Your task to perform on an android device: View the shopping cart on newegg.com. Search for "corsair k70" on newegg.com, select the first entry, and add it to the cart. Image 0: 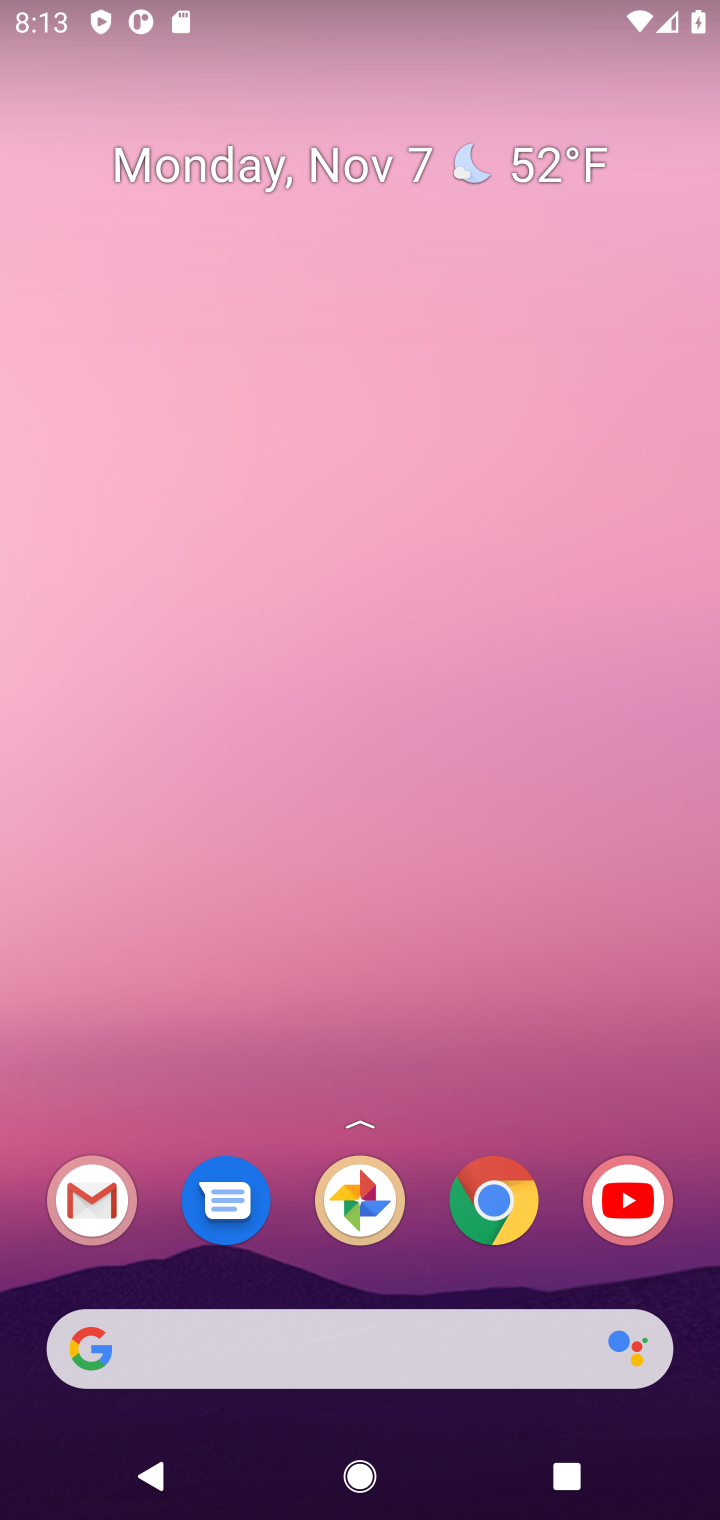
Step 0: click (484, 1185)
Your task to perform on an android device: View the shopping cart on newegg.com. Search for "corsair k70" on newegg.com, select the first entry, and add it to the cart. Image 1: 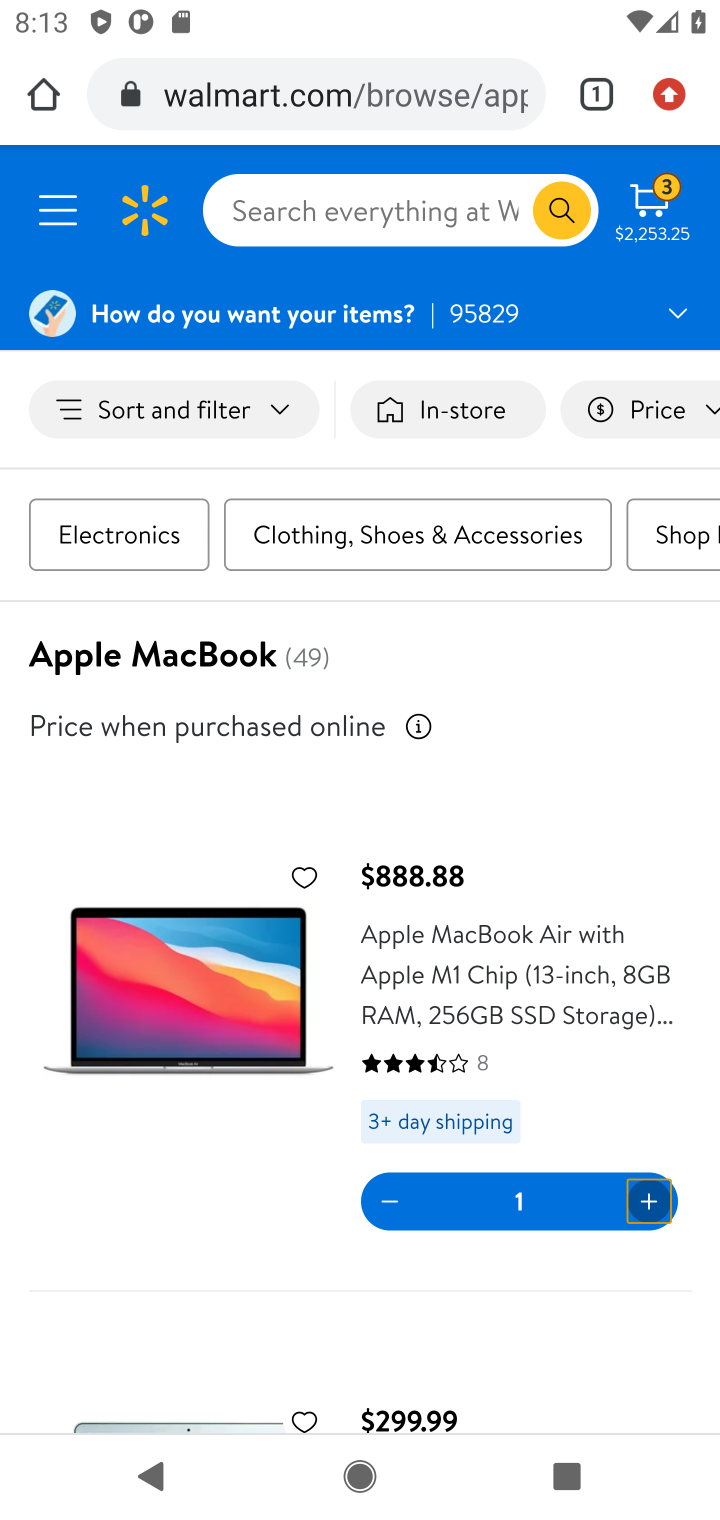
Step 1: click (269, 97)
Your task to perform on an android device: View the shopping cart on newegg.com. Search for "corsair k70" on newegg.com, select the first entry, and add it to the cart. Image 2: 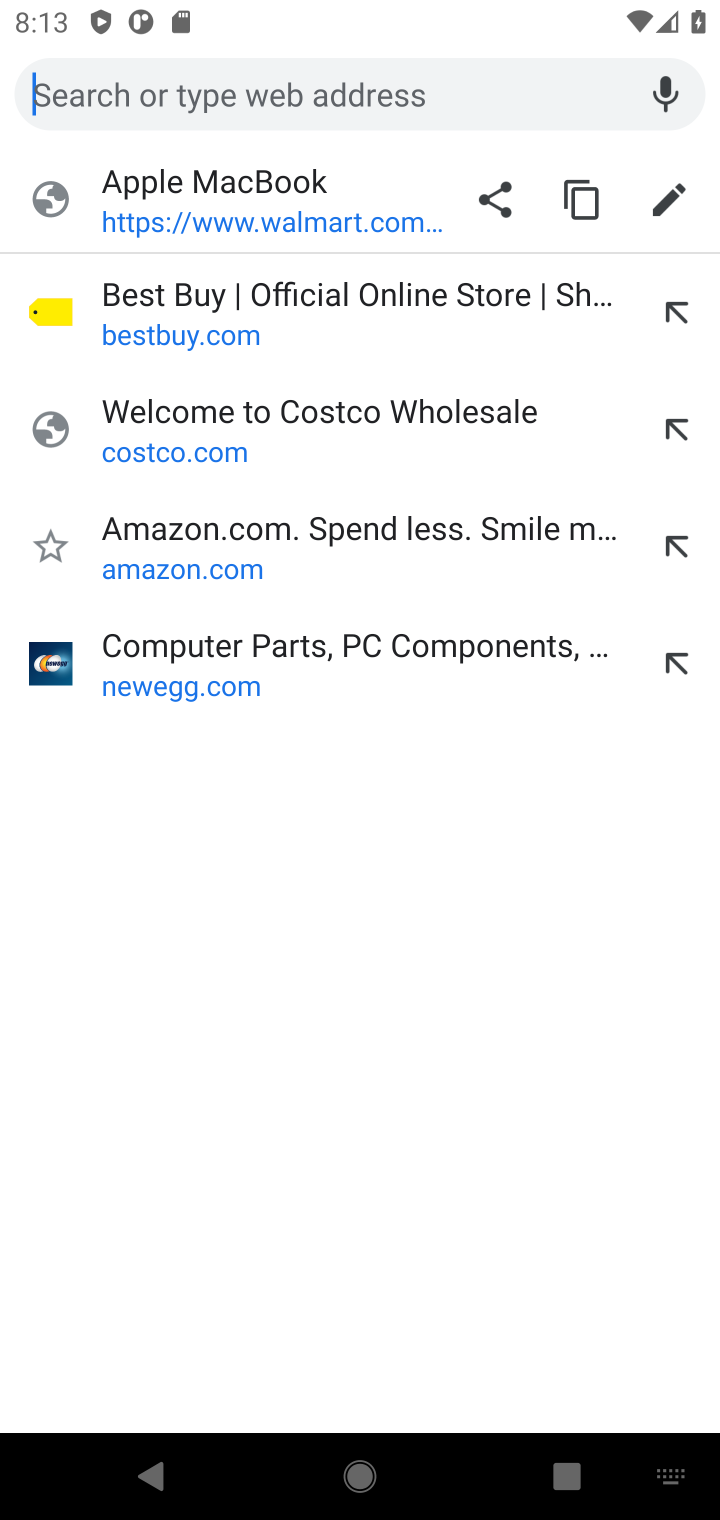
Step 2: click (209, 665)
Your task to perform on an android device: View the shopping cart on newegg.com. Search for "corsair k70" on newegg.com, select the first entry, and add it to the cart. Image 3: 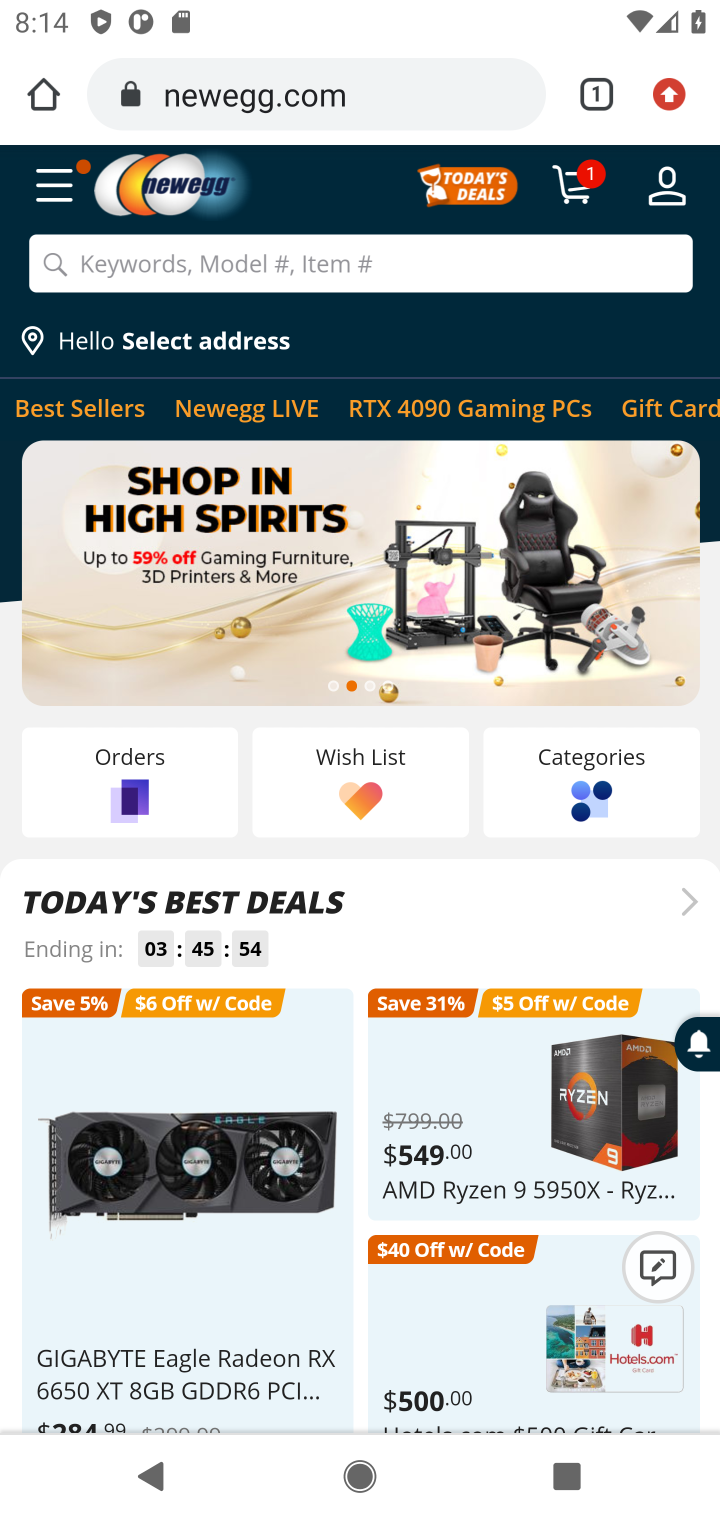
Step 3: click (579, 192)
Your task to perform on an android device: View the shopping cart on newegg.com. Search for "corsair k70" on newegg.com, select the first entry, and add it to the cart. Image 4: 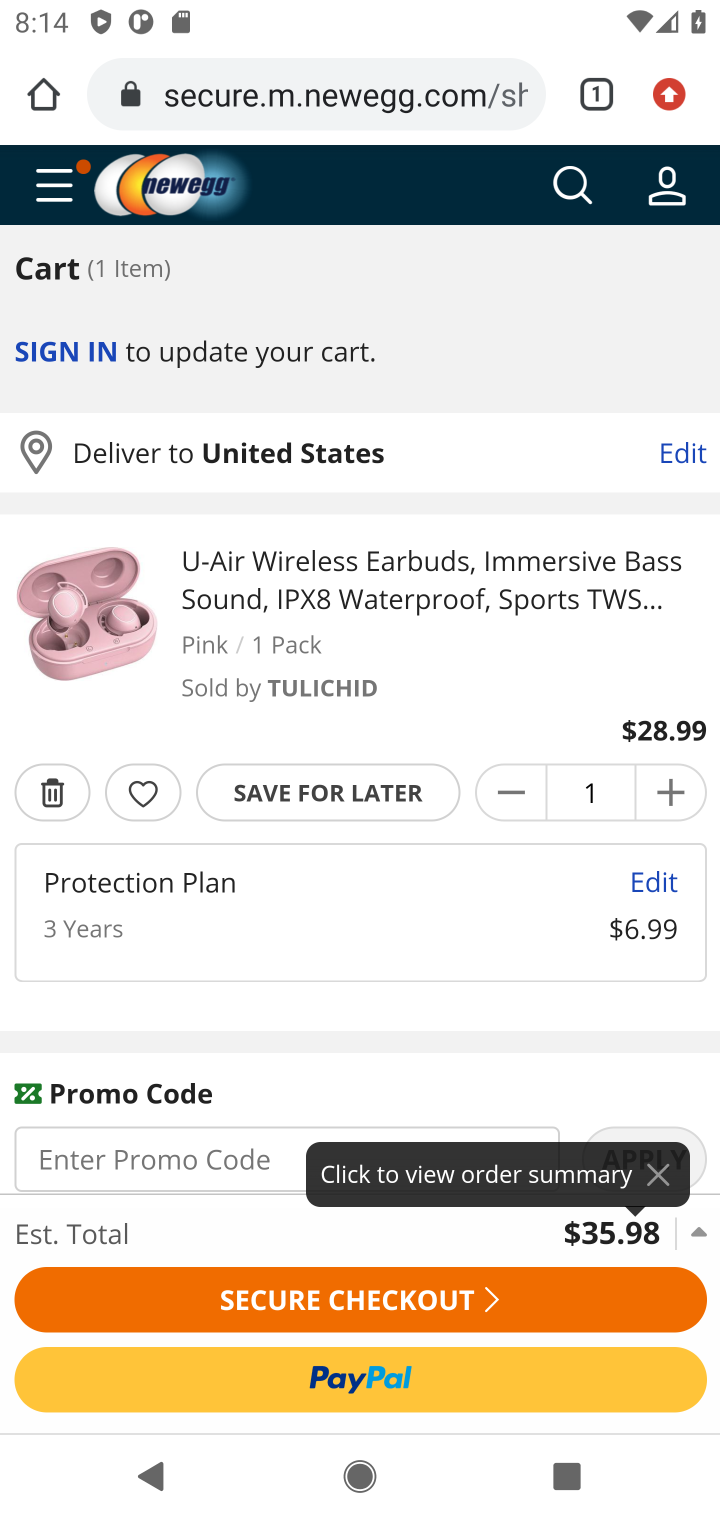
Step 4: click (556, 201)
Your task to perform on an android device: View the shopping cart on newegg.com. Search for "corsair k70" on newegg.com, select the first entry, and add it to the cart. Image 5: 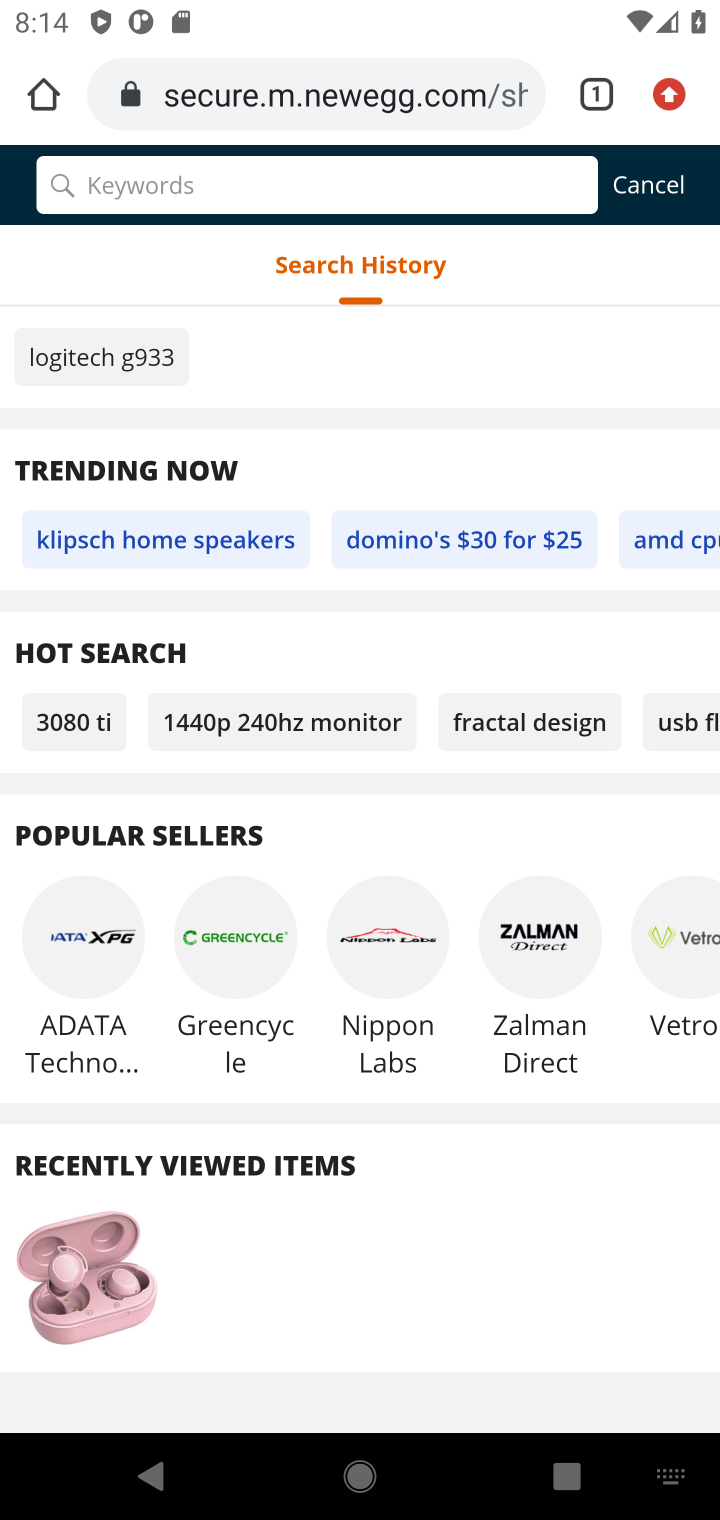
Step 5: type "corsair k70"
Your task to perform on an android device: View the shopping cart on newegg.com. Search for "corsair k70" on newegg.com, select the first entry, and add it to the cart. Image 6: 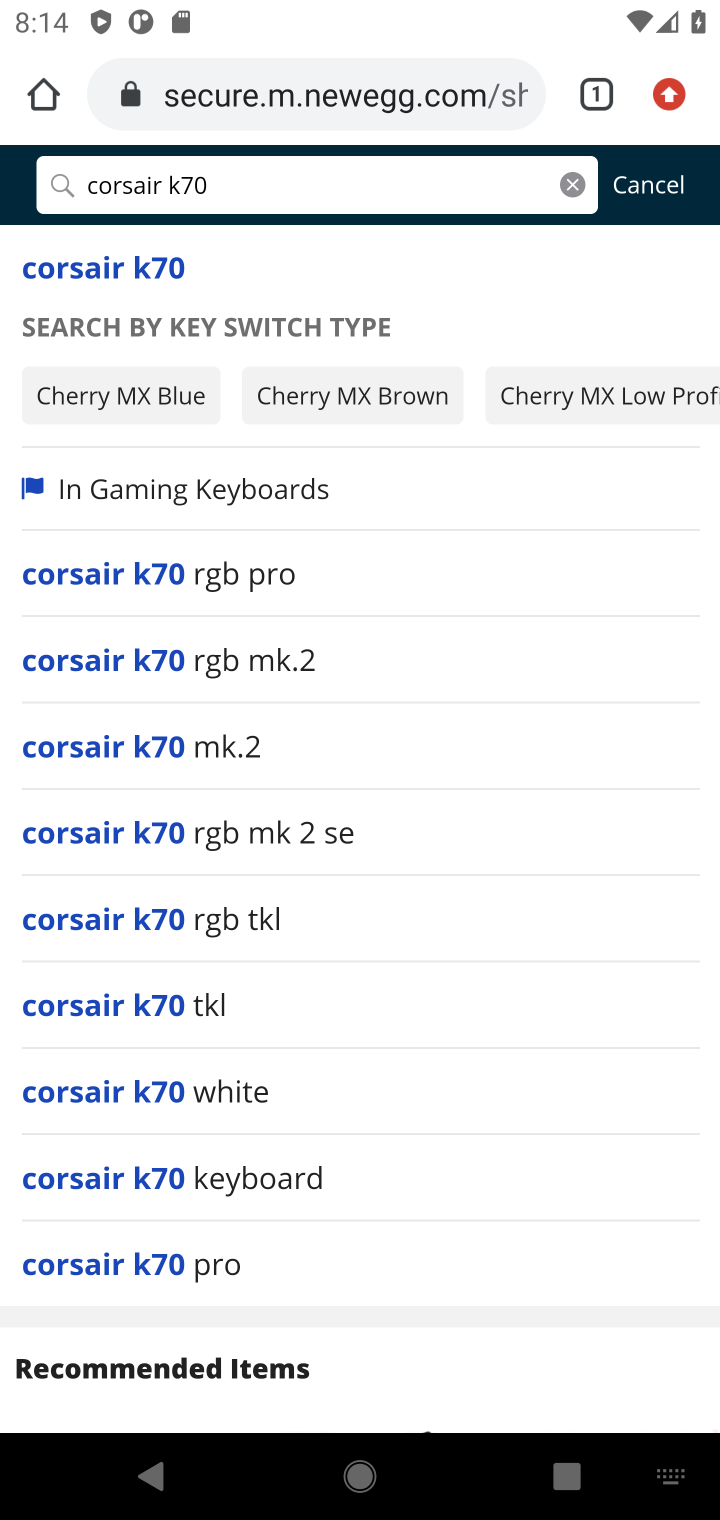
Step 6: press enter
Your task to perform on an android device: View the shopping cart on newegg.com. Search for "corsair k70" on newegg.com, select the first entry, and add it to the cart. Image 7: 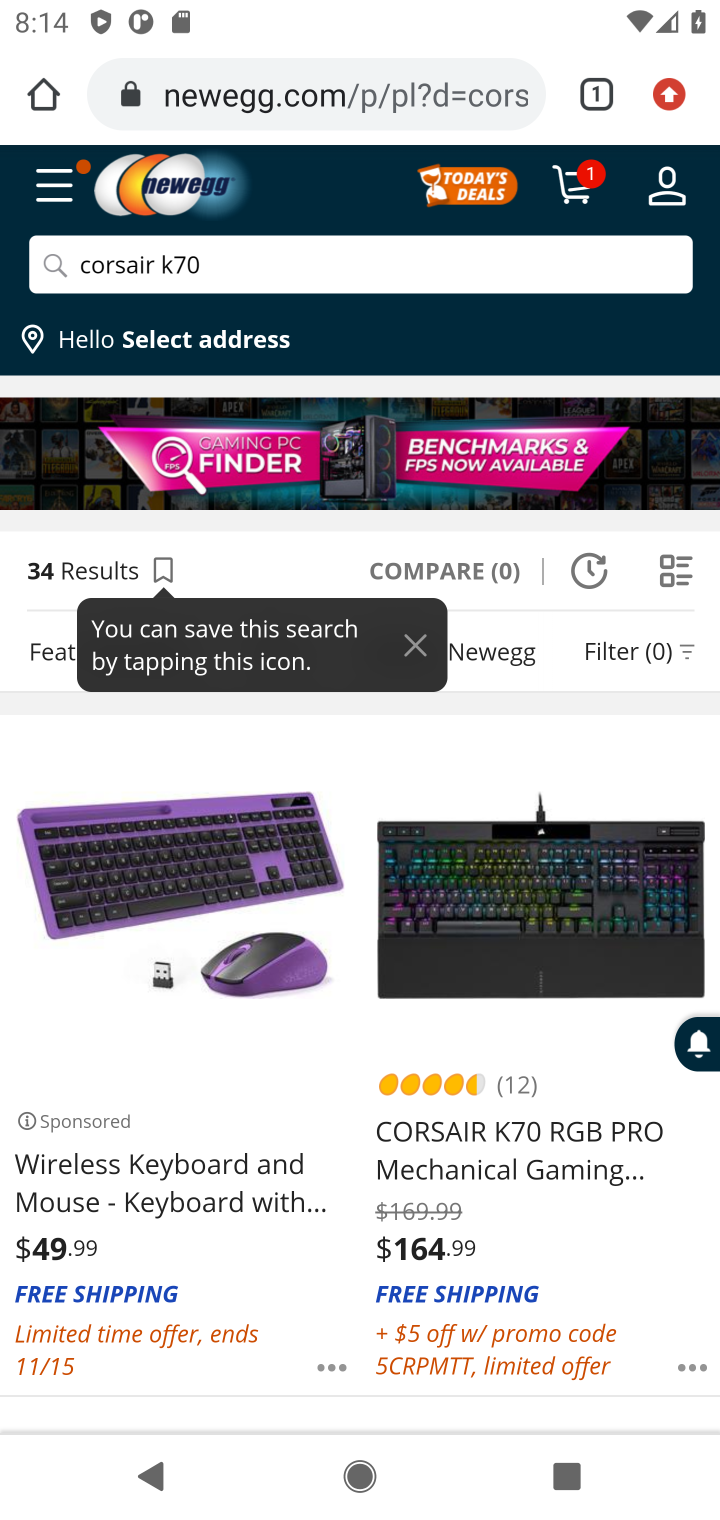
Step 7: click (261, 1021)
Your task to perform on an android device: View the shopping cart on newegg.com. Search for "corsair k70" on newegg.com, select the first entry, and add it to the cart. Image 8: 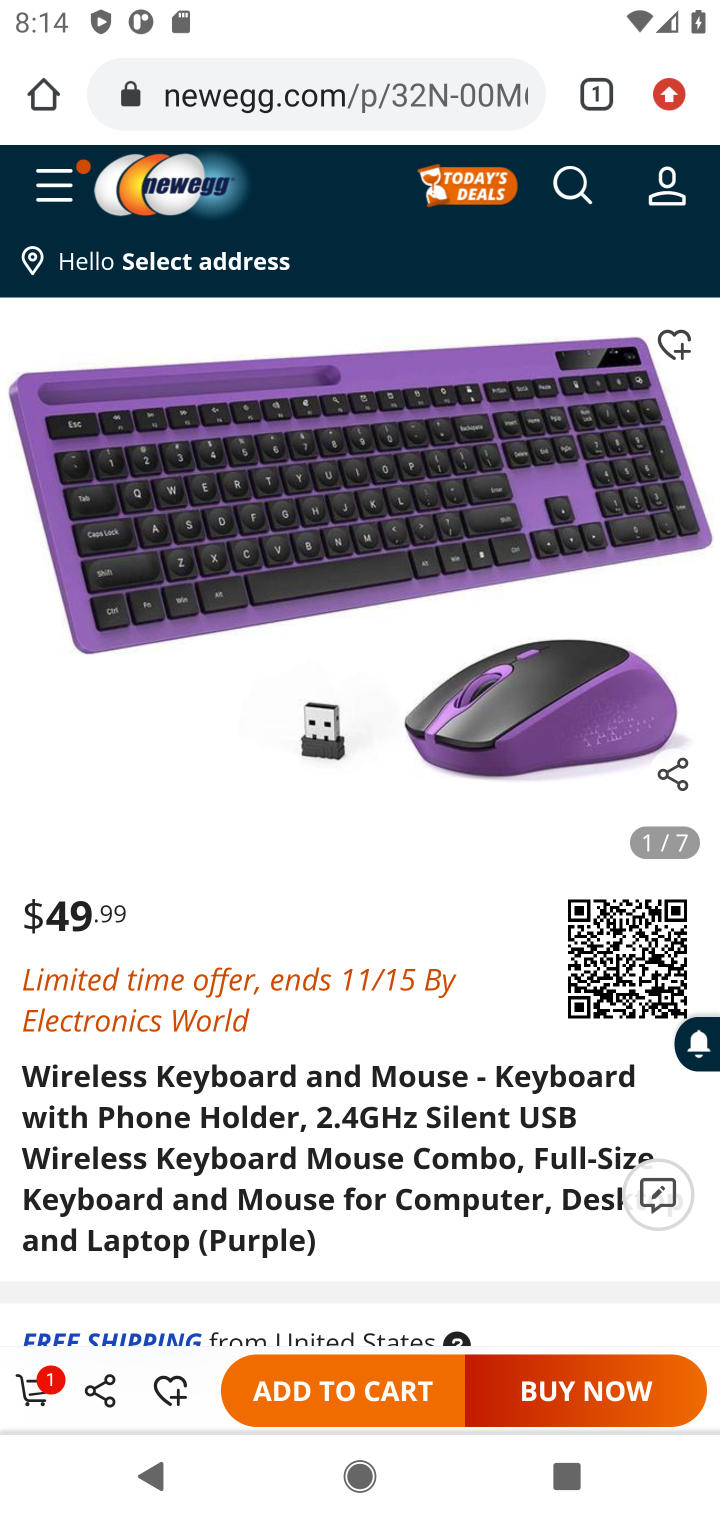
Step 8: click (321, 1403)
Your task to perform on an android device: View the shopping cart on newegg.com. Search for "corsair k70" on newegg.com, select the first entry, and add it to the cart. Image 9: 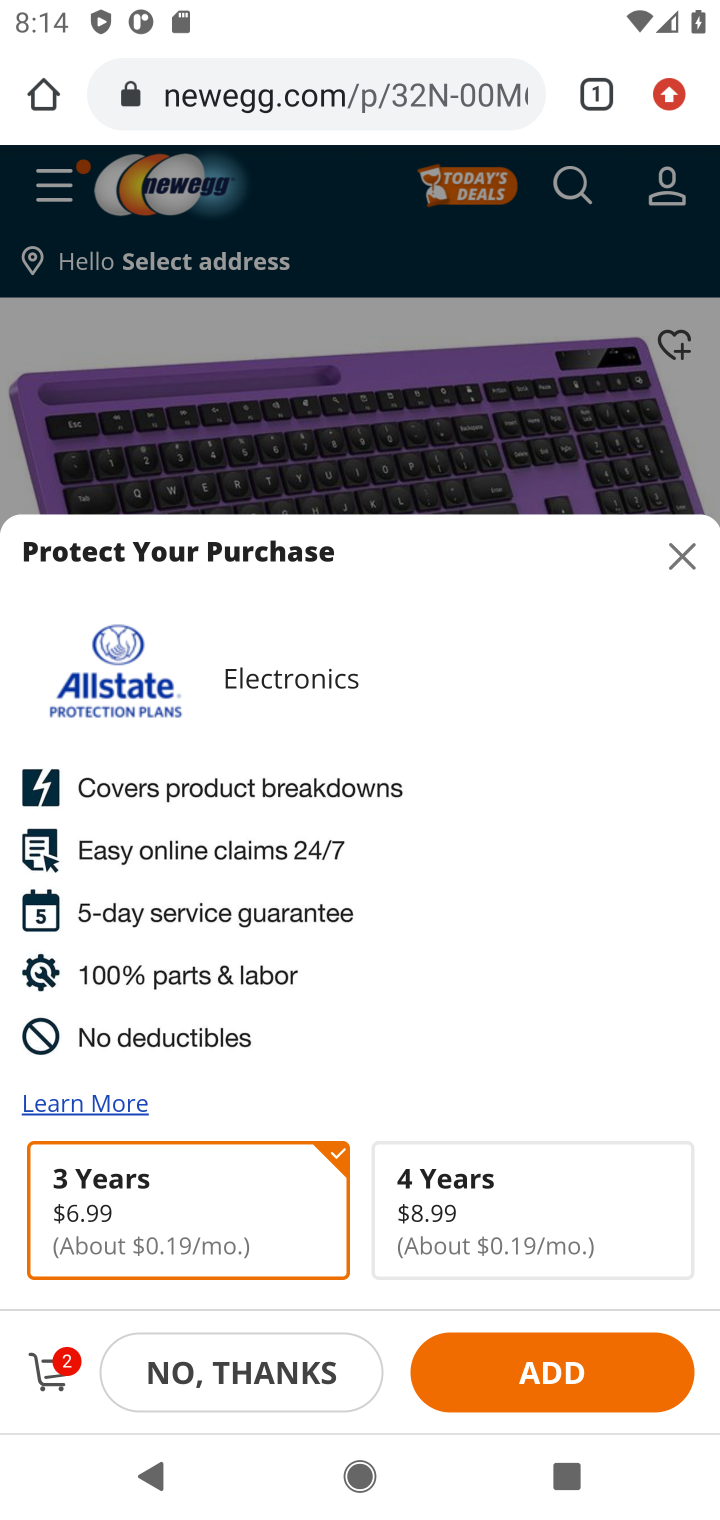
Step 9: click (516, 1358)
Your task to perform on an android device: View the shopping cart on newegg.com. Search for "corsair k70" on newegg.com, select the first entry, and add it to the cart. Image 10: 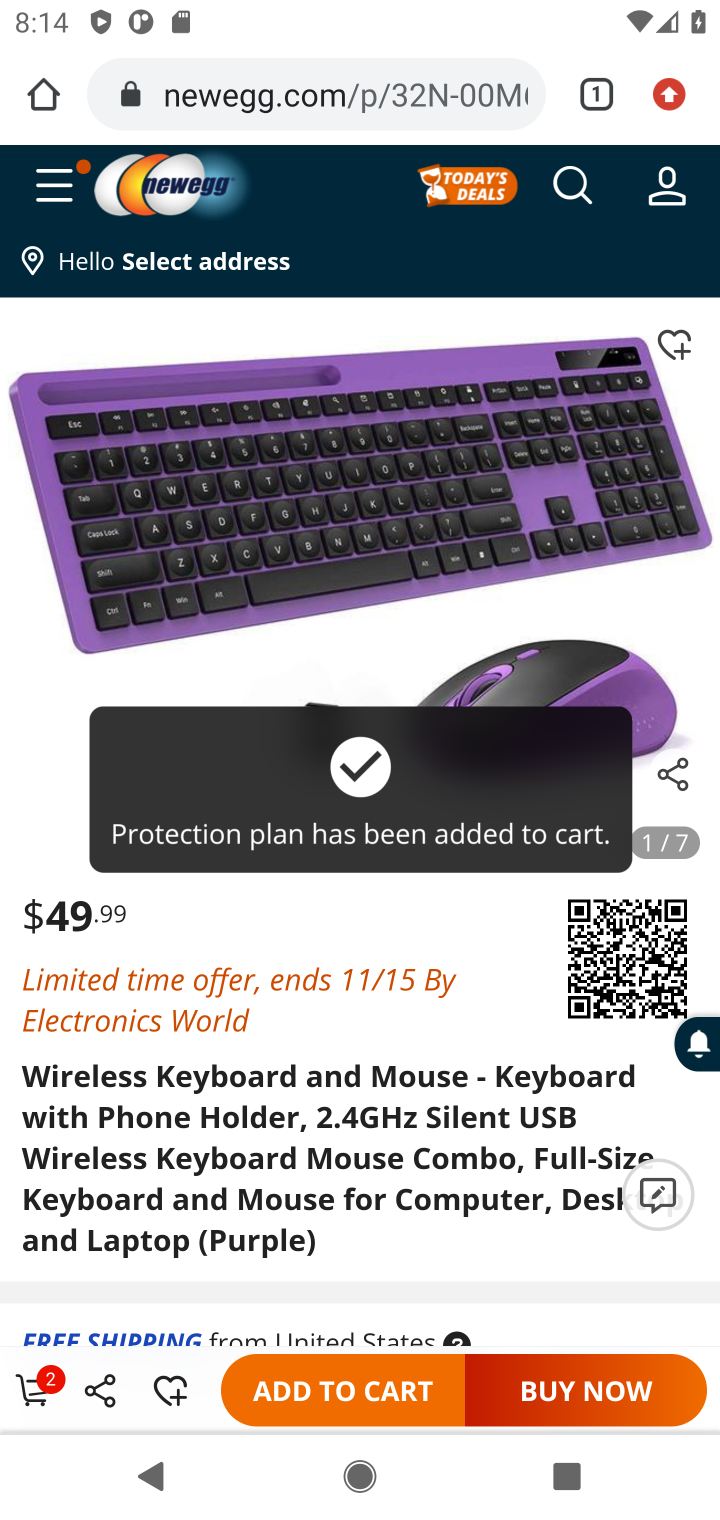
Step 10: click (50, 206)
Your task to perform on an android device: View the shopping cart on newegg.com. Search for "corsair k70" on newegg.com, select the first entry, and add it to the cart. Image 11: 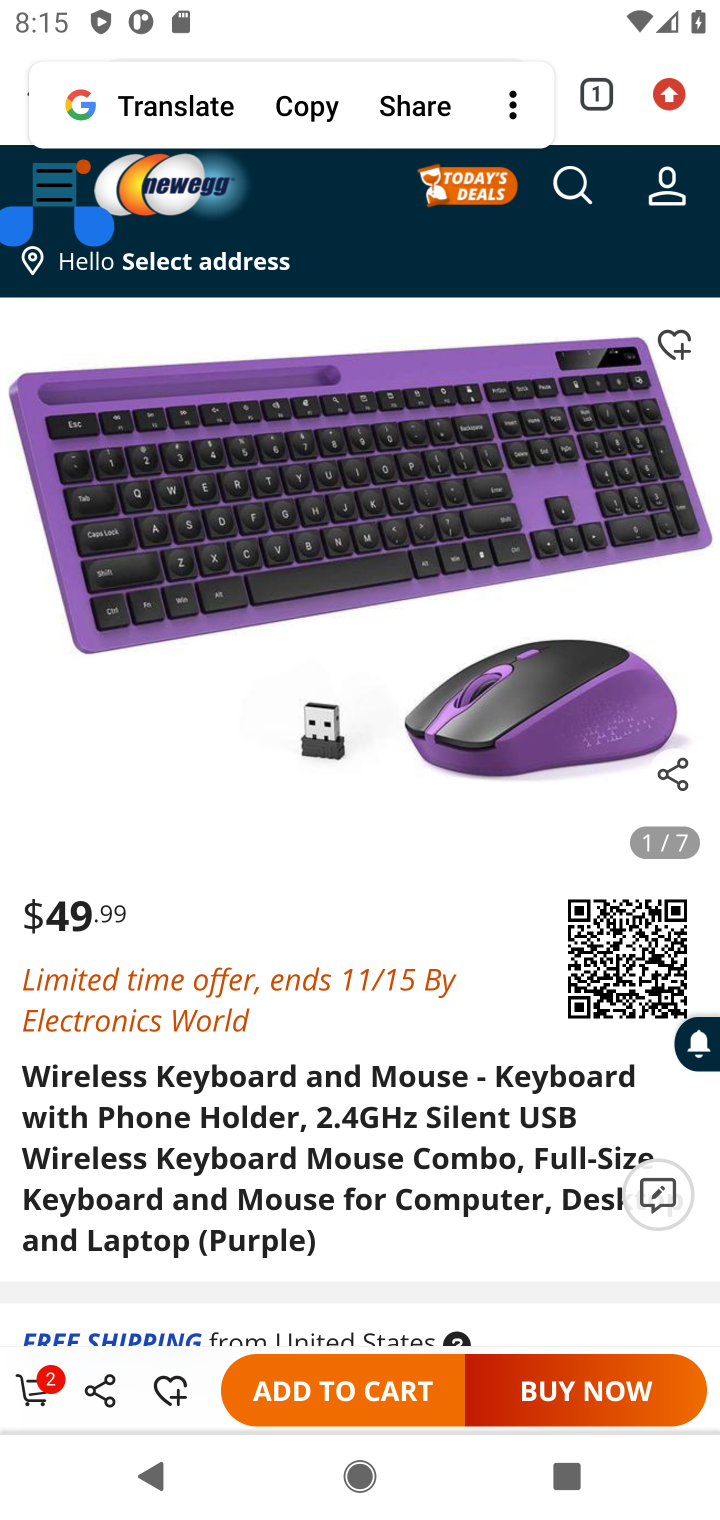
Step 11: click (373, 284)
Your task to perform on an android device: View the shopping cart on newegg.com. Search for "corsair k70" on newegg.com, select the first entry, and add it to the cart. Image 12: 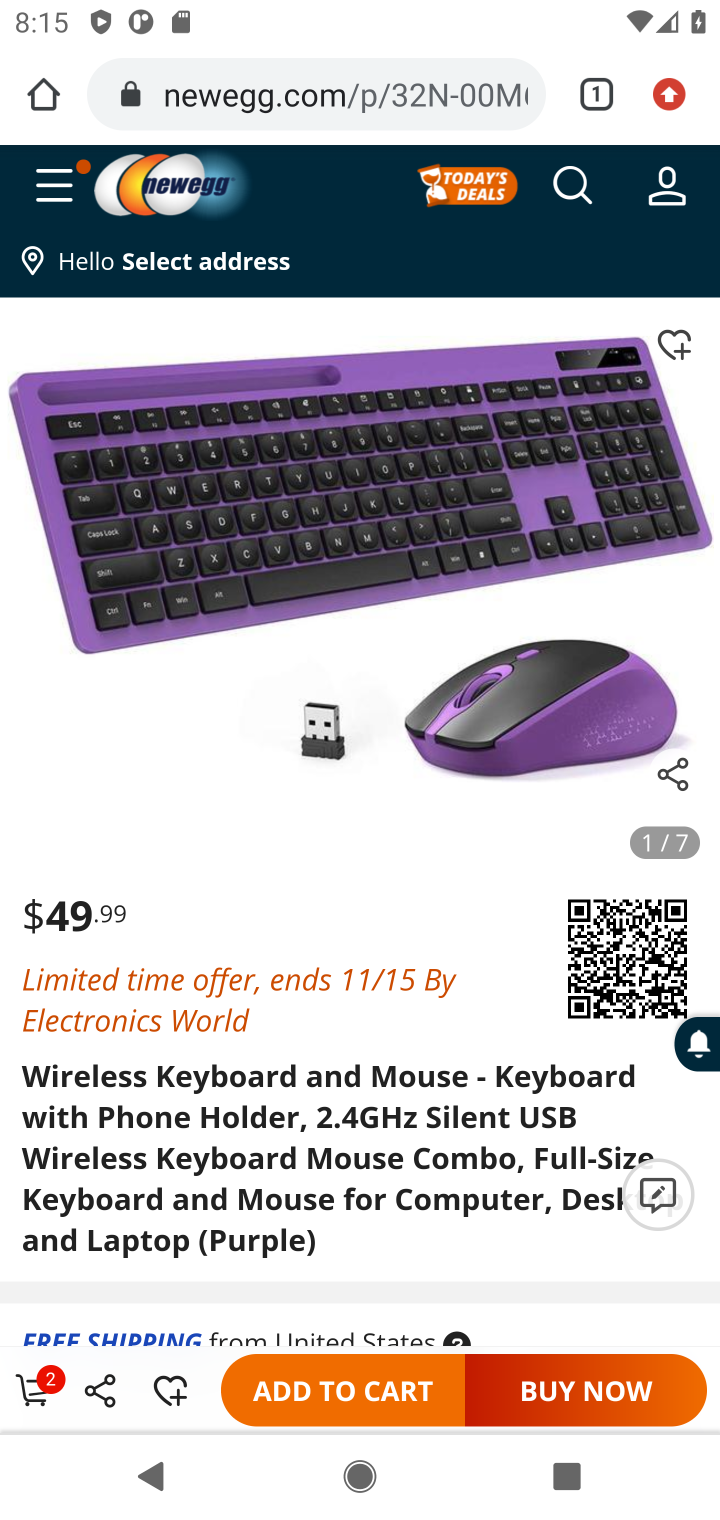
Step 12: click (49, 189)
Your task to perform on an android device: View the shopping cart on newegg.com. Search for "corsair k70" on newegg.com, select the first entry, and add it to the cart. Image 13: 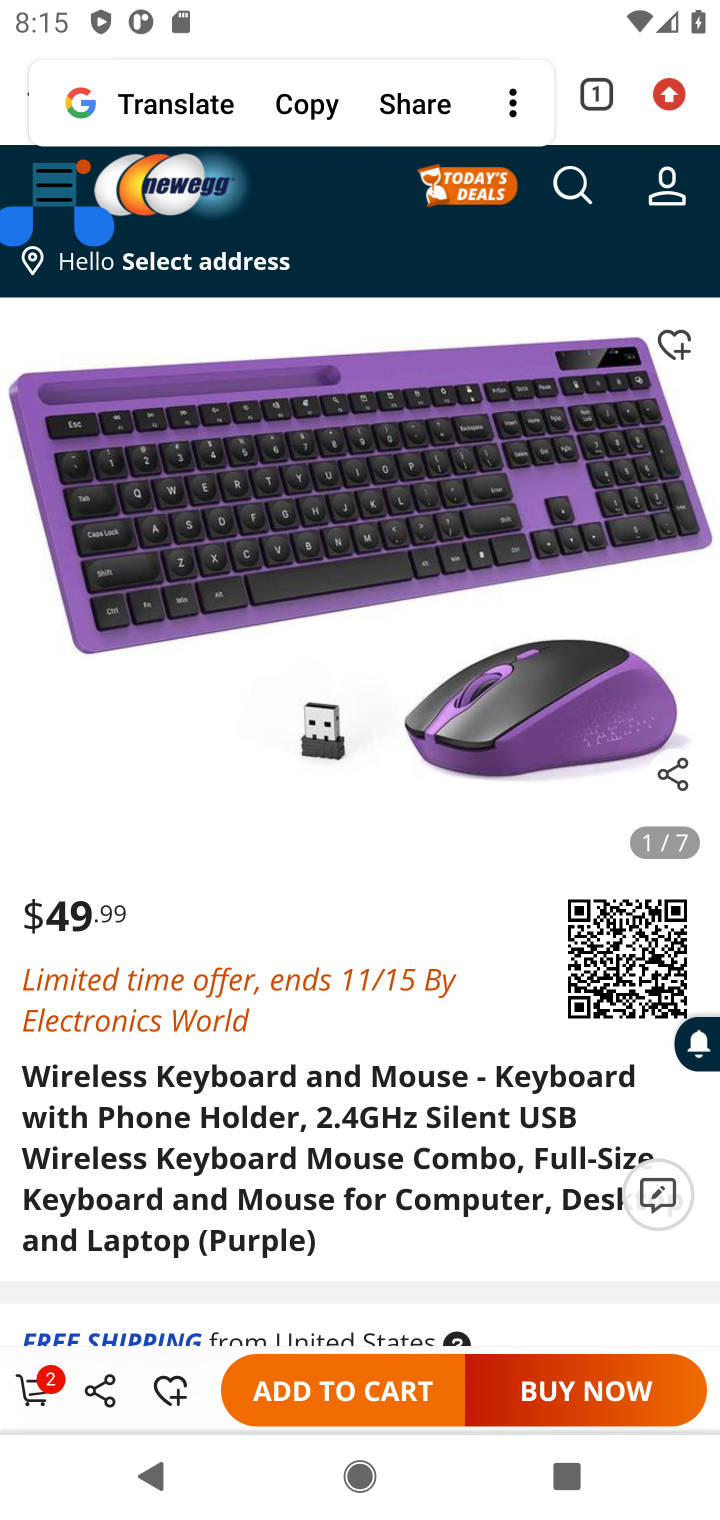
Step 13: click (468, 274)
Your task to perform on an android device: View the shopping cart on newegg.com. Search for "corsair k70" on newegg.com, select the first entry, and add it to the cart. Image 14: 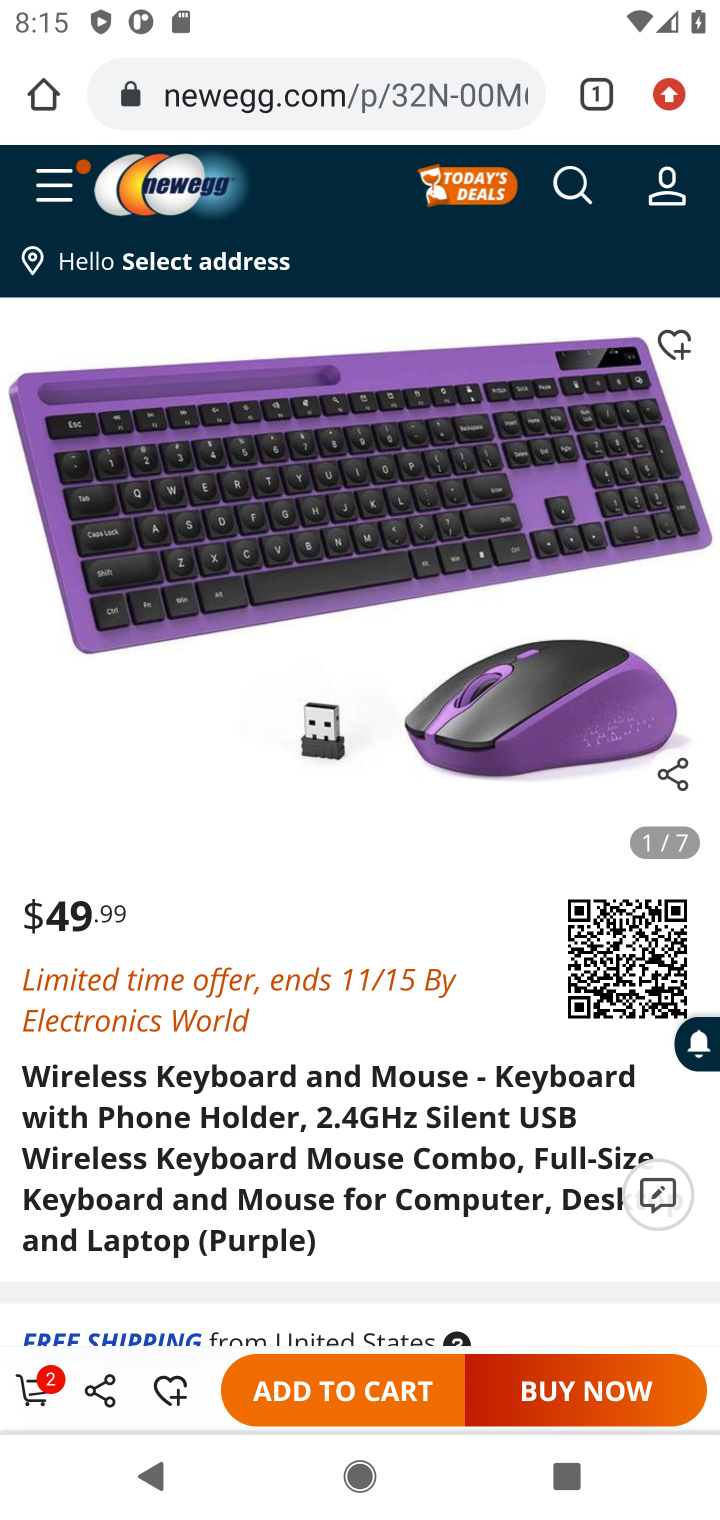
Step 14: click (489, 266)
Your task to perform on an android device: View the shopping cart on newegg.com. Search for "corsair k70" on newegg.com, select the first entry, and add it to the cart. Image 15: 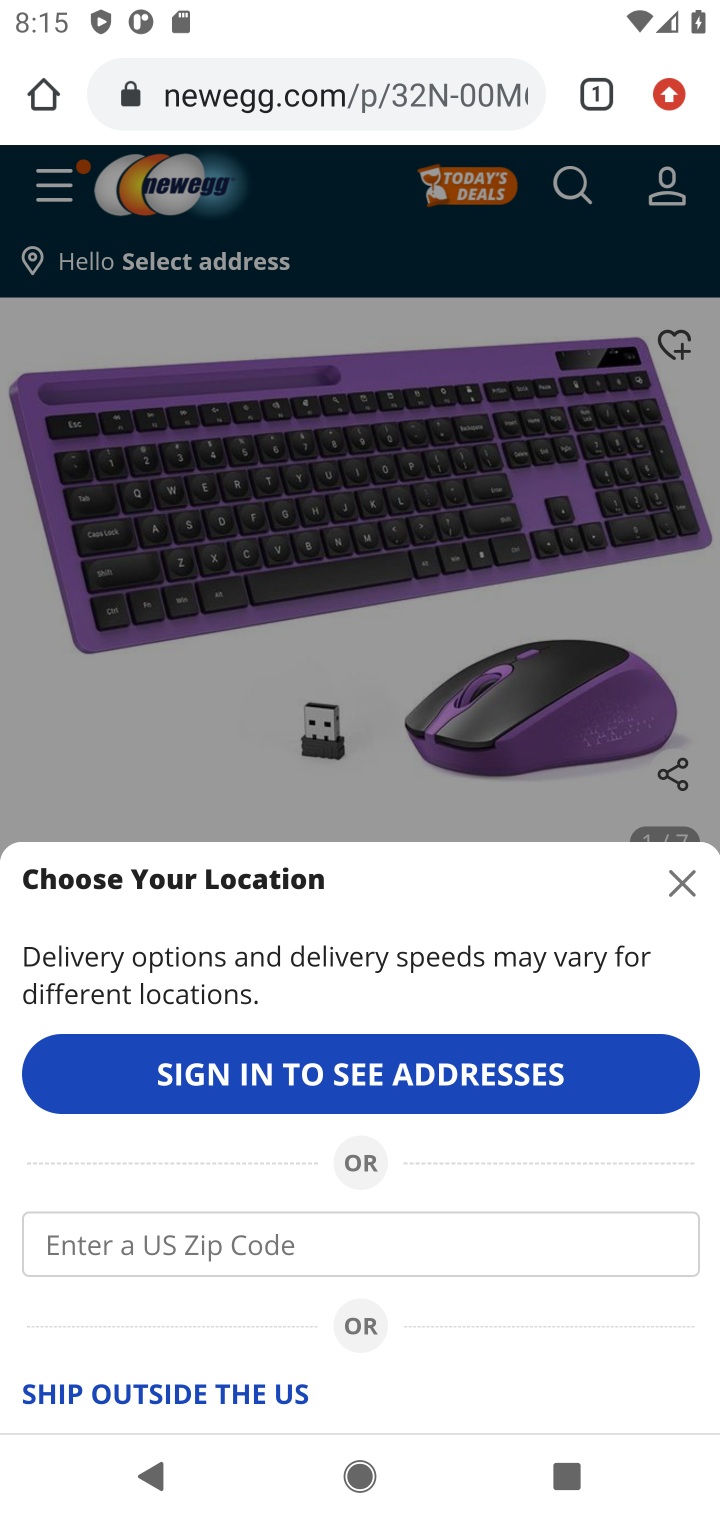
Step 15: click (676, 886)
Your task to perform on an android device: View the shopping cart on newegg.com. Search for "corsair k70" on newegg.com, select the first entry, and add it to the cart. Image 16: 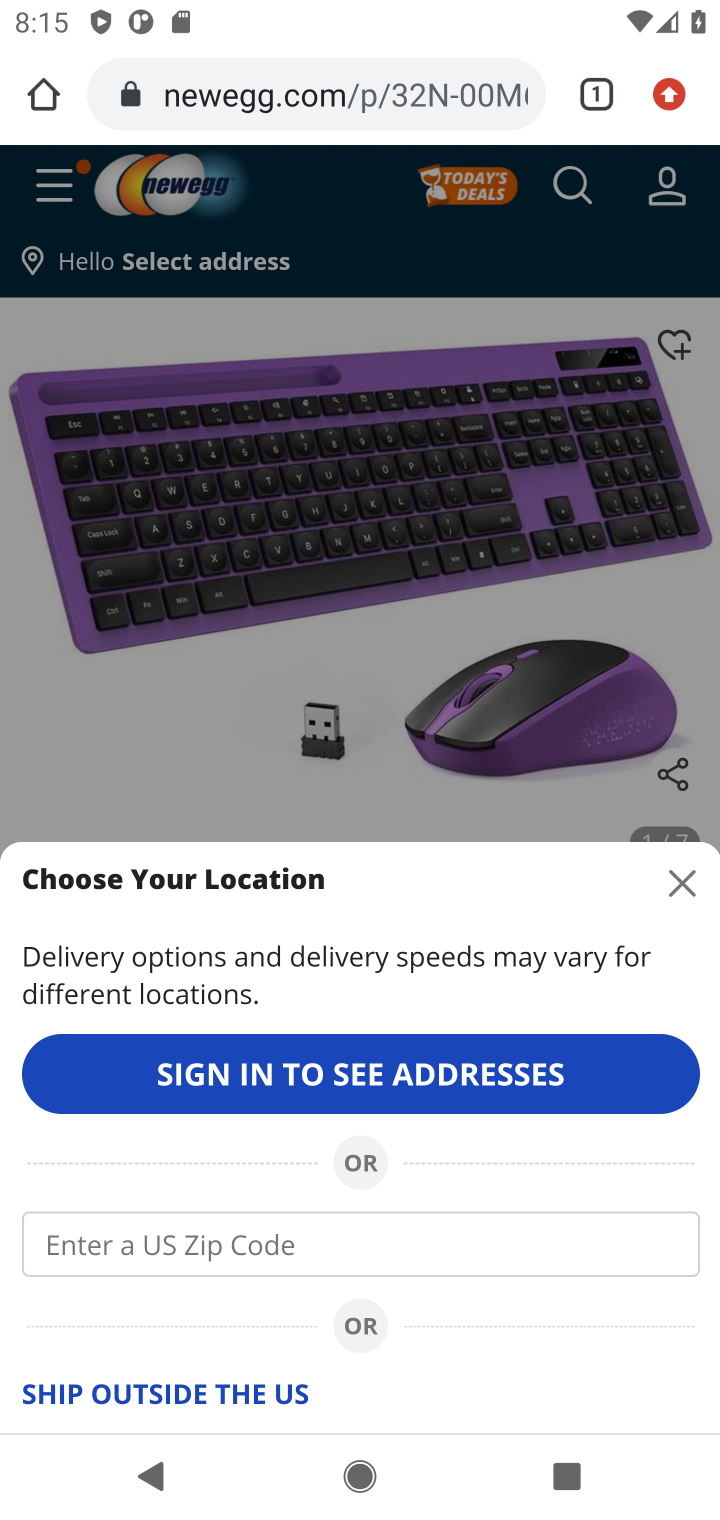
Step 16: click (678, 890)
Your task to perform on an android device: View the shopping cart on newegg.com. Search for "corsair k70" on newegg.com, select the first entry, and add it to the cart. Image 17: 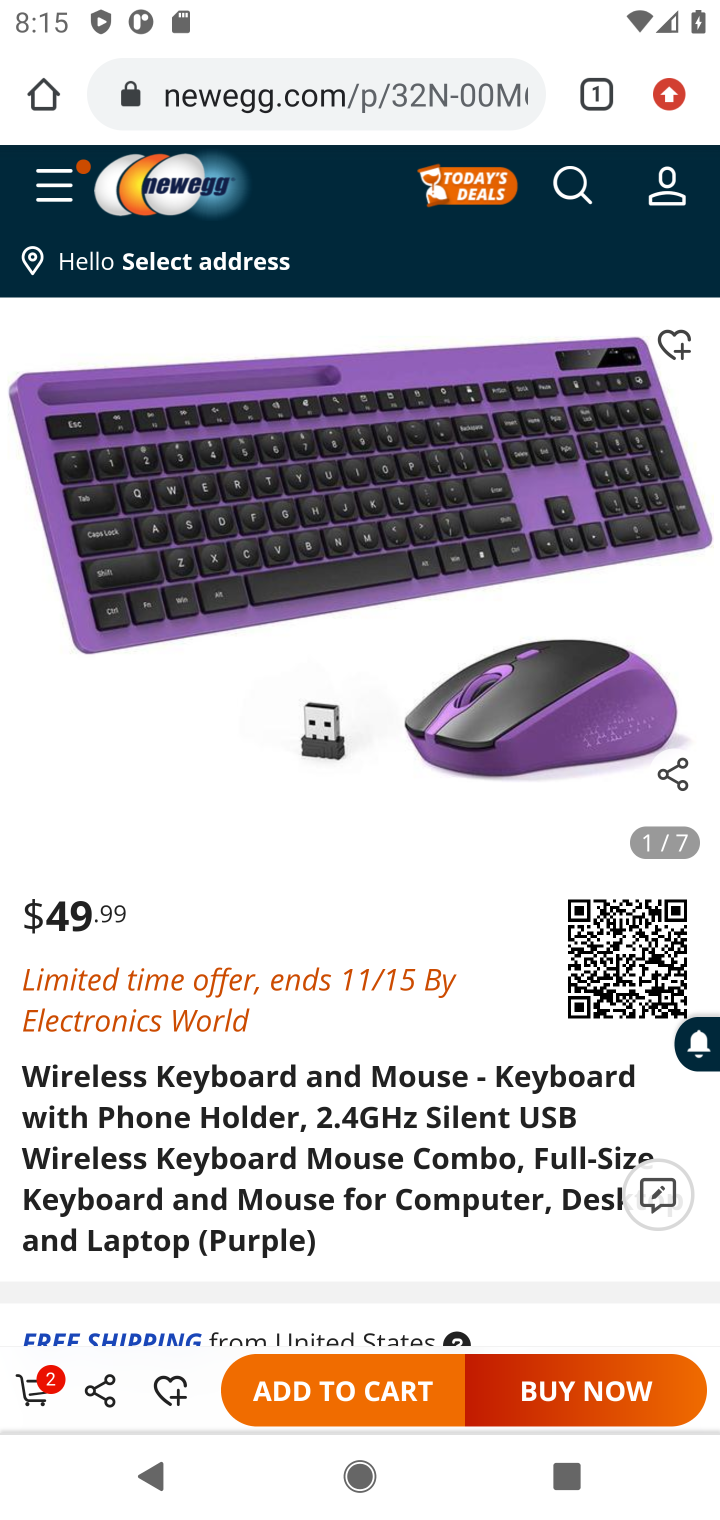
Step 17: click (330, 1388)
Your task to perform on an android device: View the shopping cart on newegg.com. Search for "corsair k70" on newegg.com, select the first entry, and add it to the cart. Image 18: 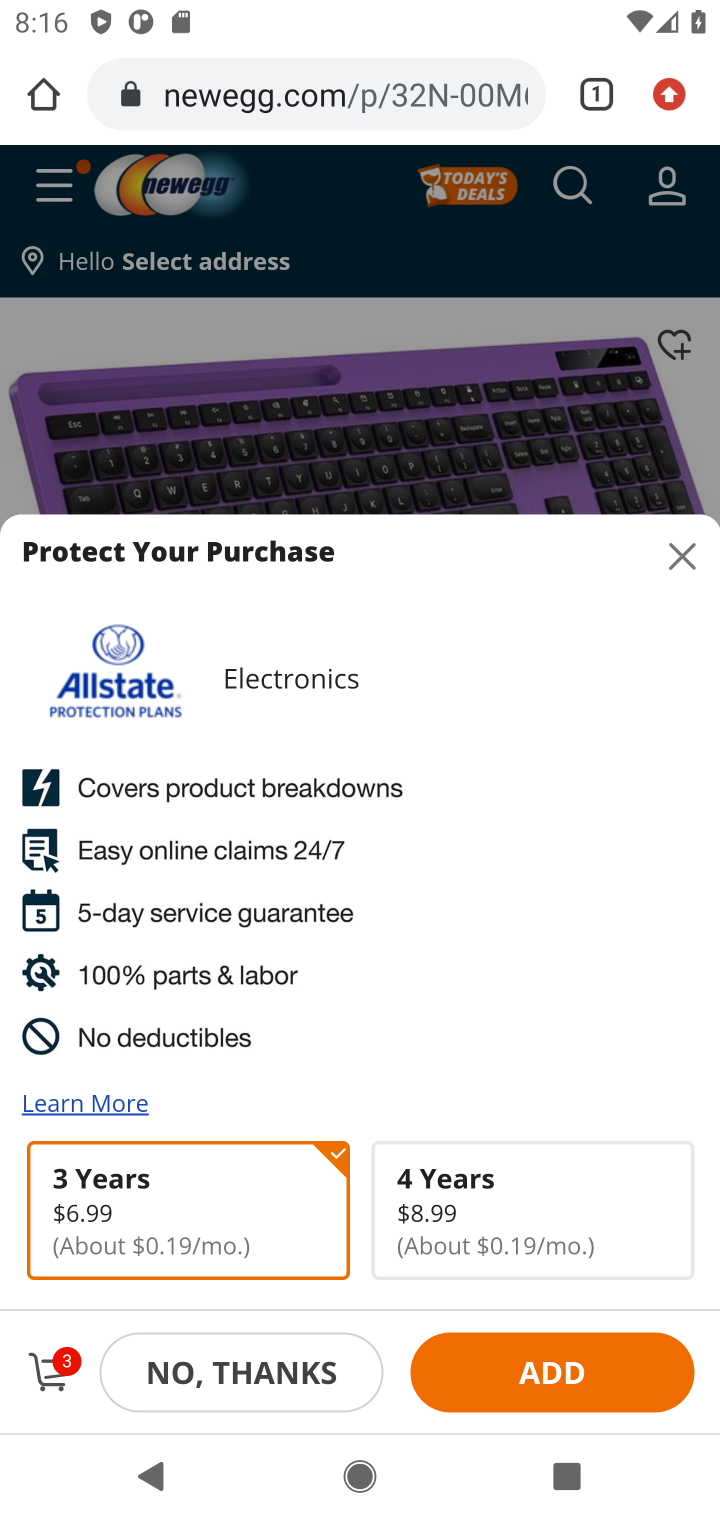
Step 18: click (494, 1370)
Your task to perform on an android device: View the shopping cart on newegg.com. Search for "corsair k70" on newegg.com, select the first entry, and add it to the cart. Image 19: 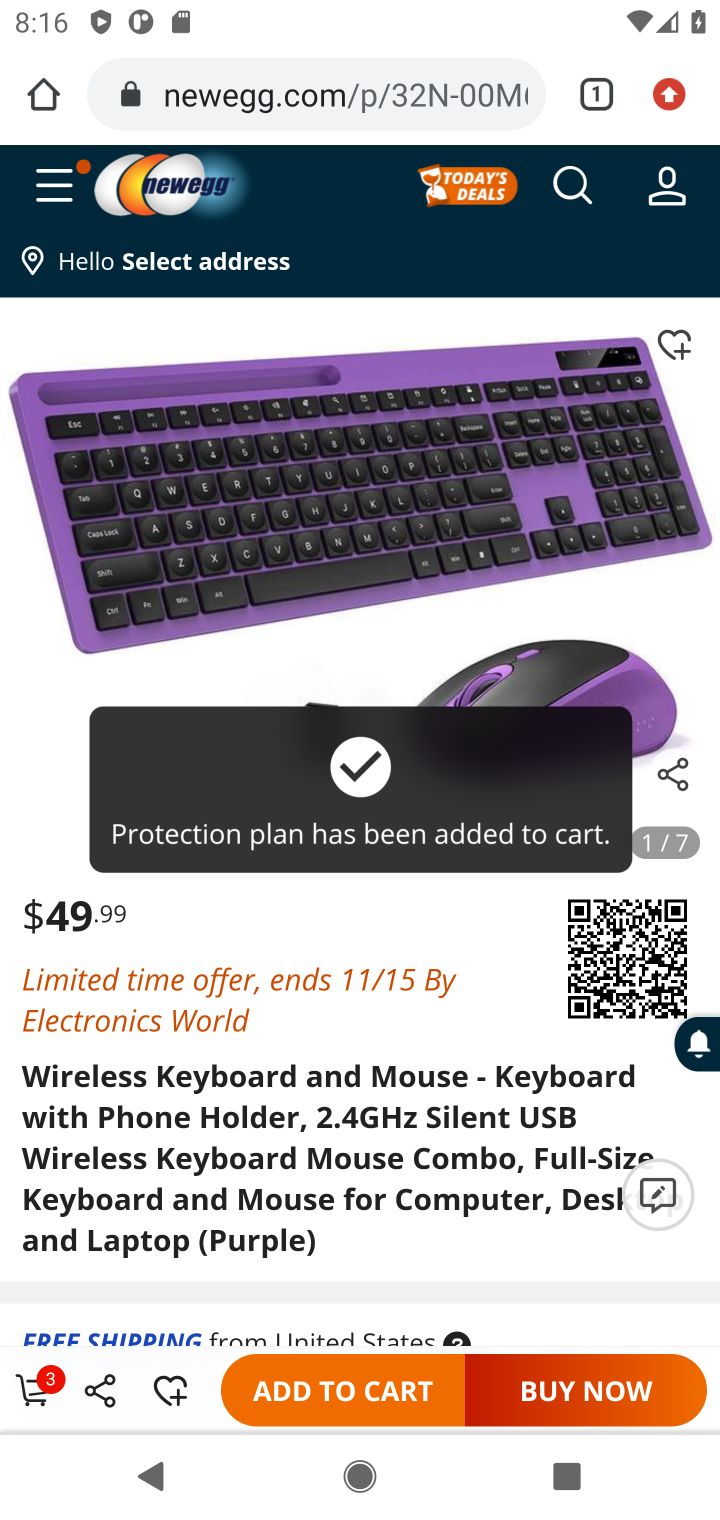
Step 19: click (60, 195)
Your task to perform on an android device: View the shopping cart on newegg.com. Search for "corsair k70" on newegg.com, select the first entry, and add it to the cart. Image 20: 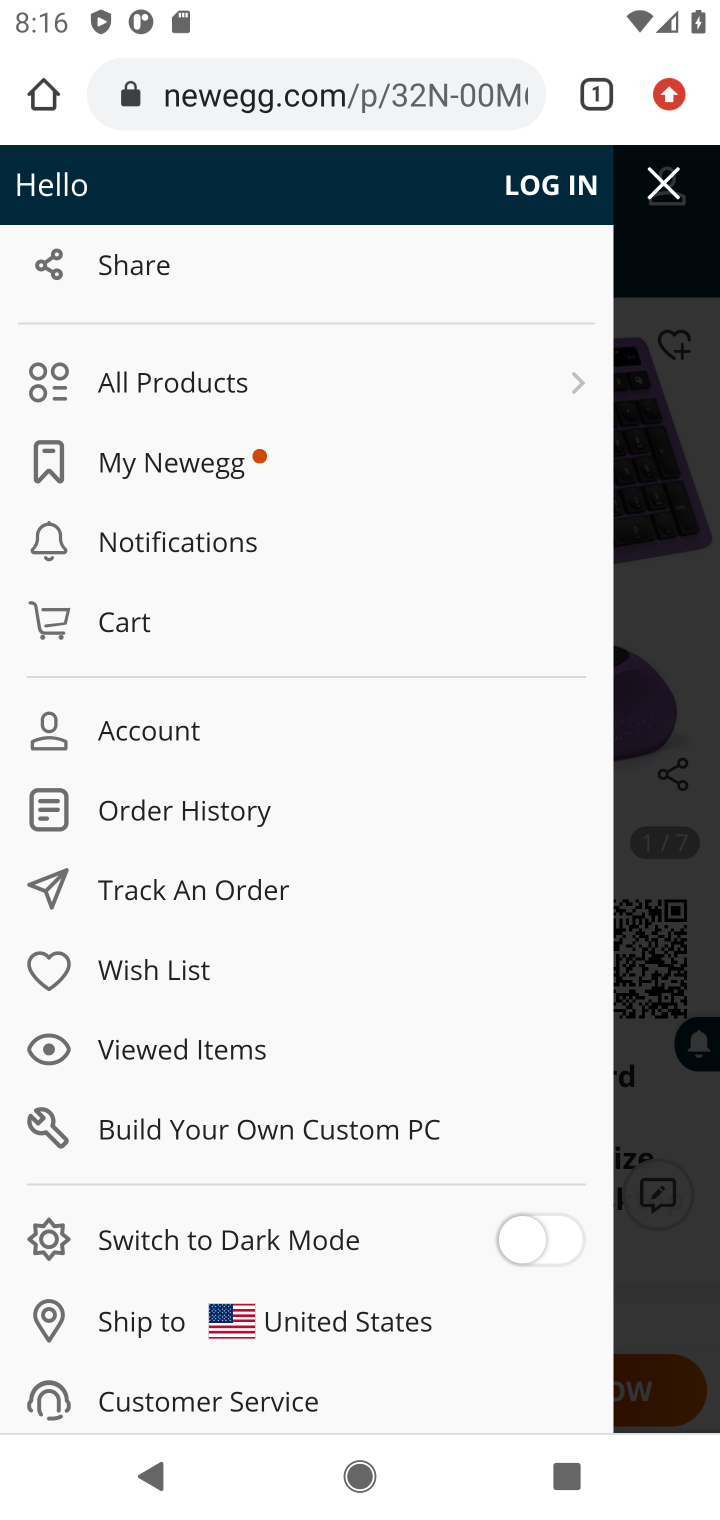
Step 20: click (142, 633)
Your task to perform on an android device: View the shopping cart on newegg.com. Search for "corsair k70" on newegg.com, select the first entry, and add it to the cart. Image 21: 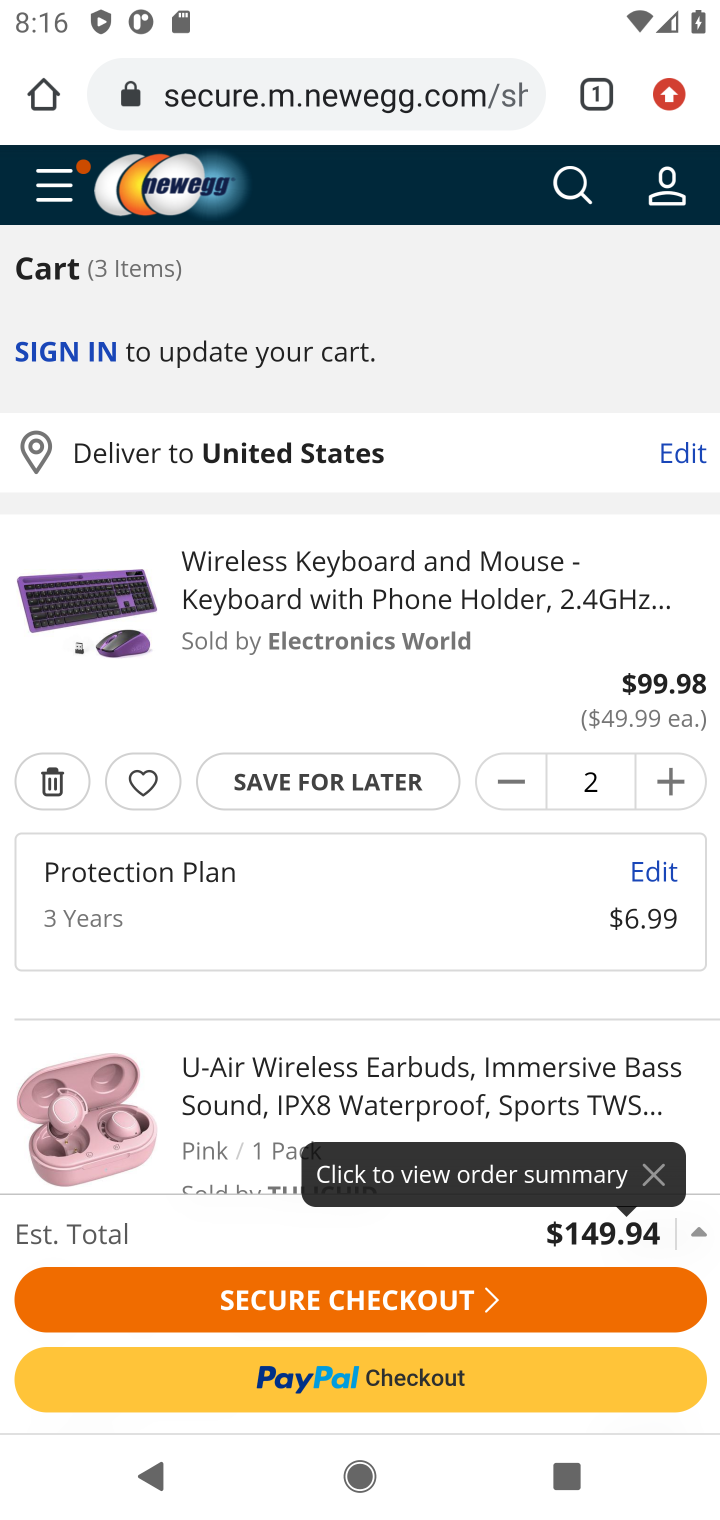
Step 21: click (392, 1310)
Your task to perform on an android device: View the shopping cart on newegg.com. Search for "corsair k70" on newegg.com, select the first entry, and add it to the cart. Image 22: 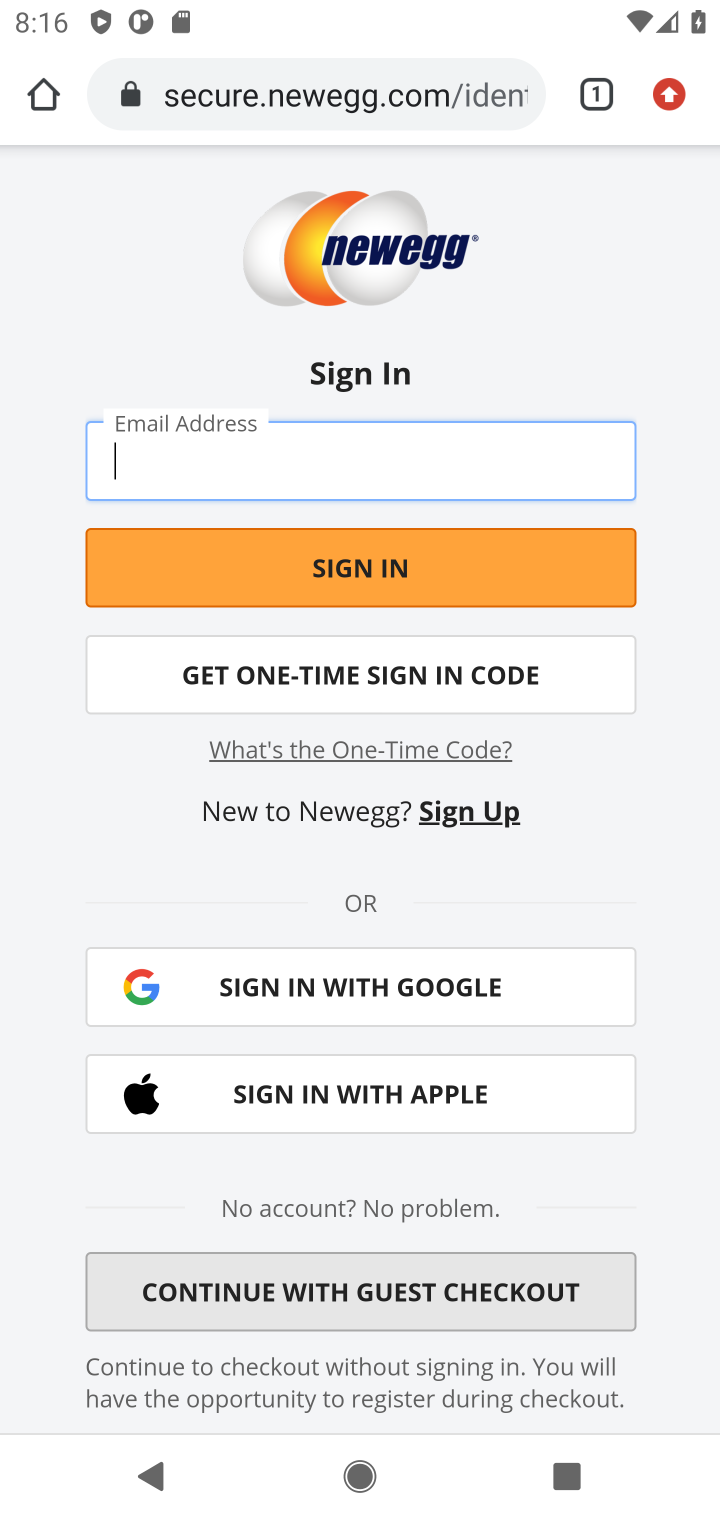
Step 22: task complete